Your task to perform on an android device: set default search engine in the chrome app Image 0: 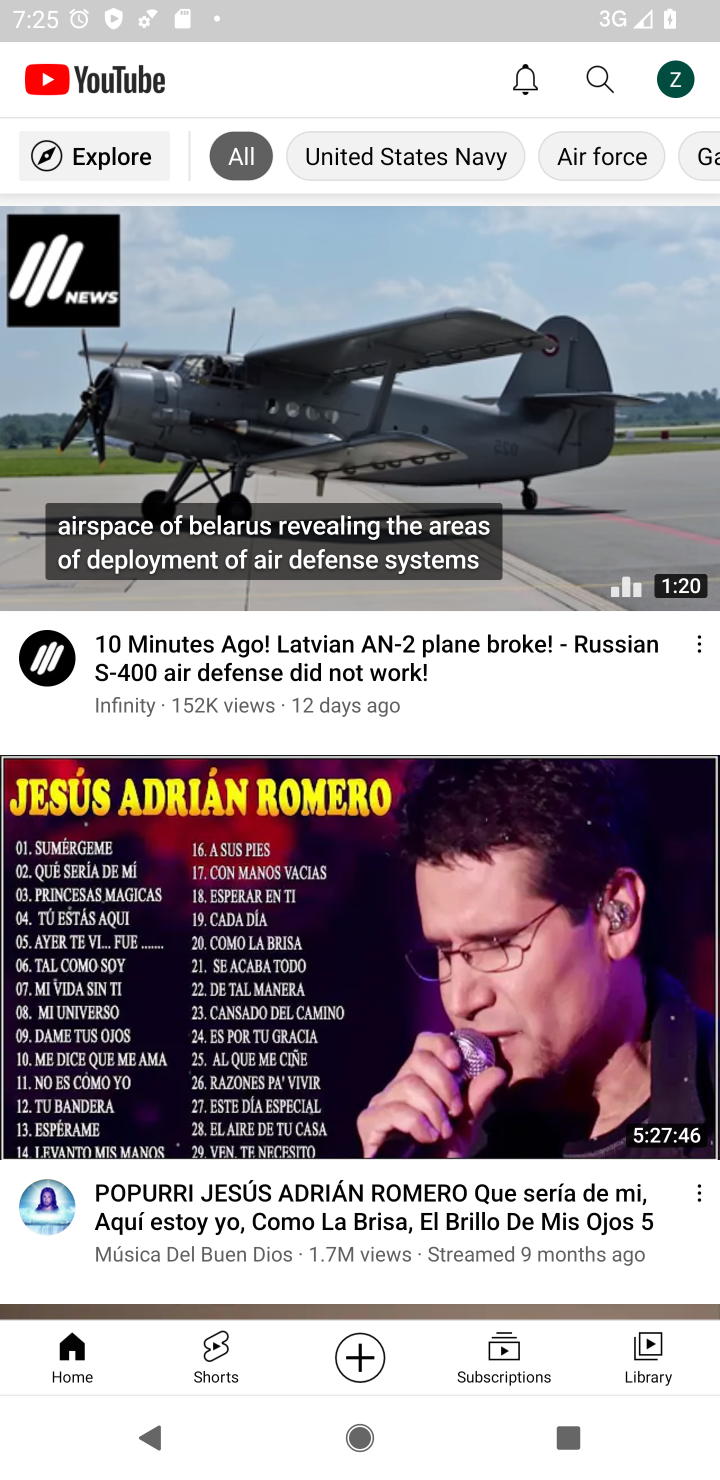
Step 0: press home button
Your task to perform on an android device: set default search engine in the chrome app Image 1: 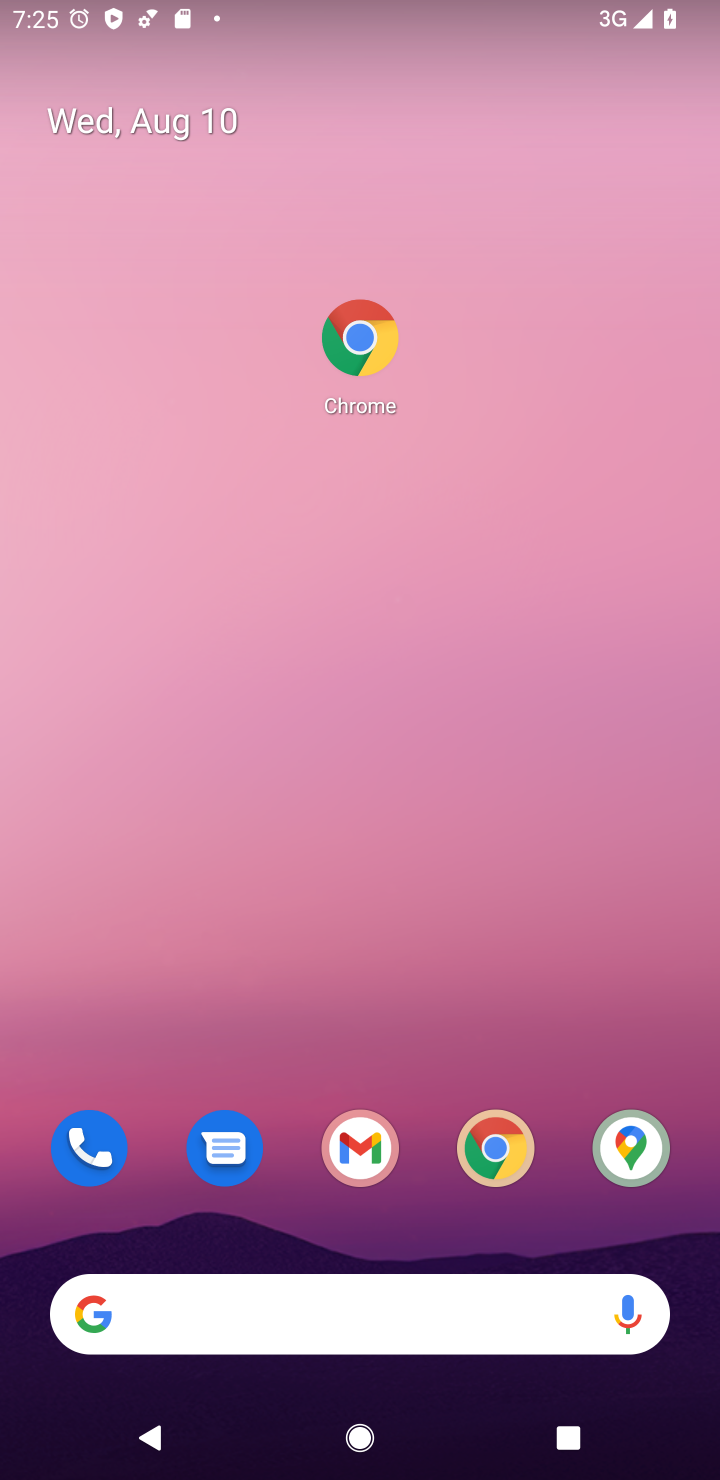
Step 1: click (510, 1160)
Your task to perform on an android device: set default search engine in the chrome app Image 2: 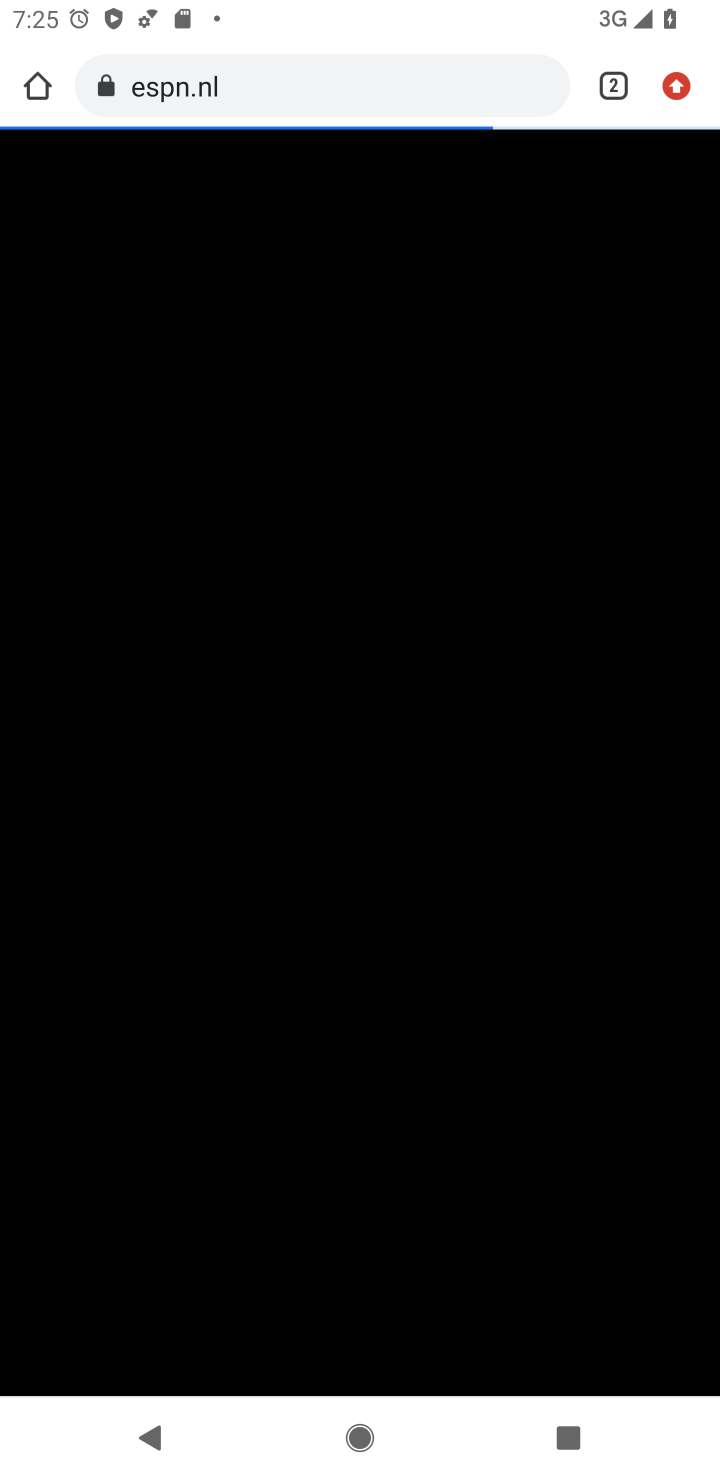
Step 2: click (677, 88)
Your task to perform on an android device: set default search engine in the chrome app Image 3: 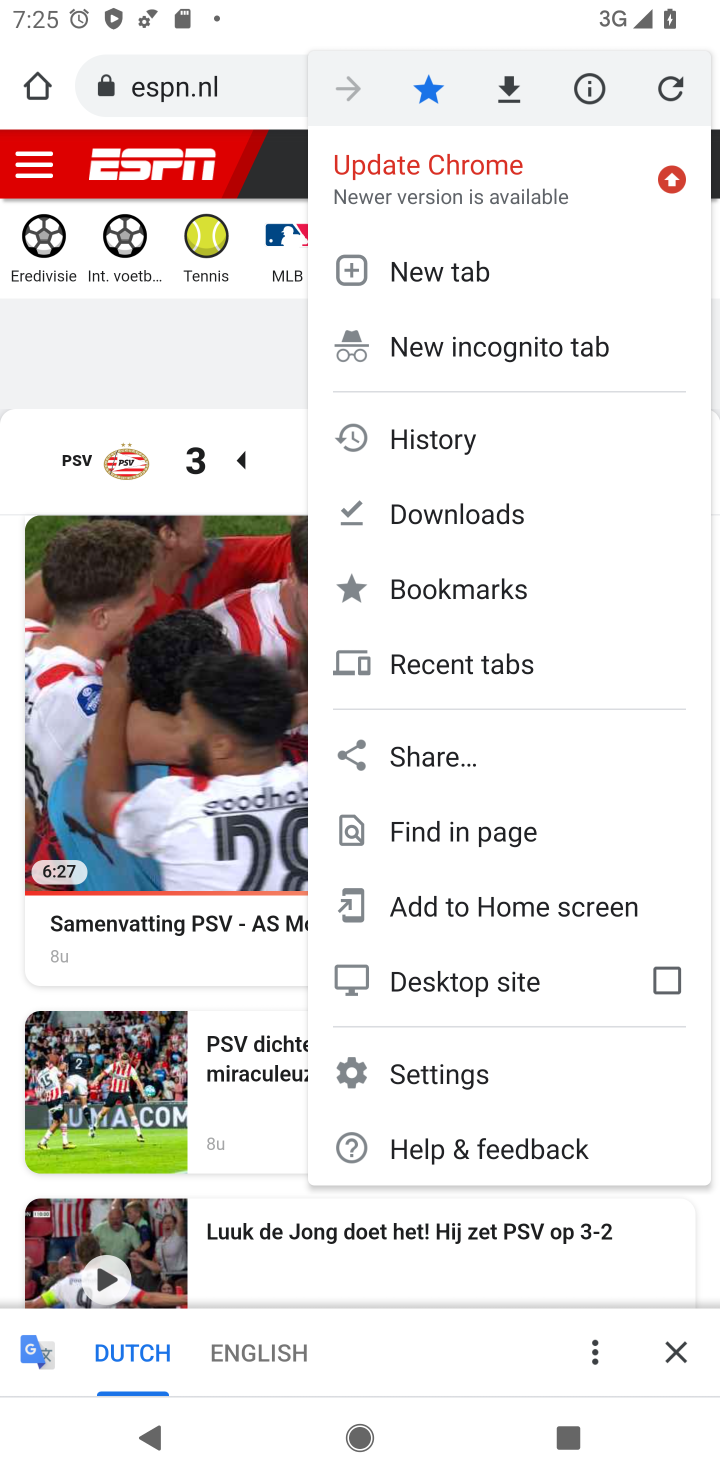
Step 3: click (450, 1065)
Your task to perform on an android device: set default search engine in the chrome app Image 4: 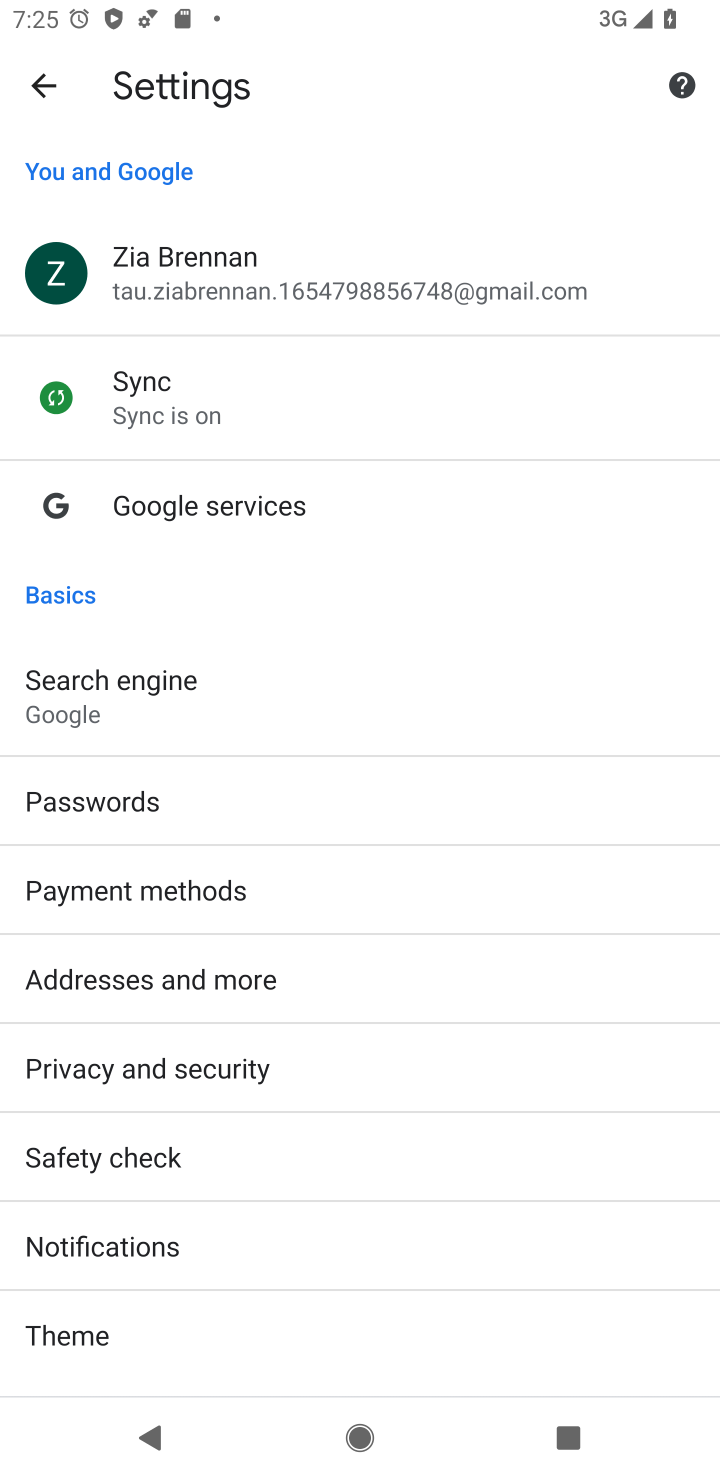
Step 4: click (189, 707)
Your task to perform on an android device: set default search engine in the chrome app Image 5: 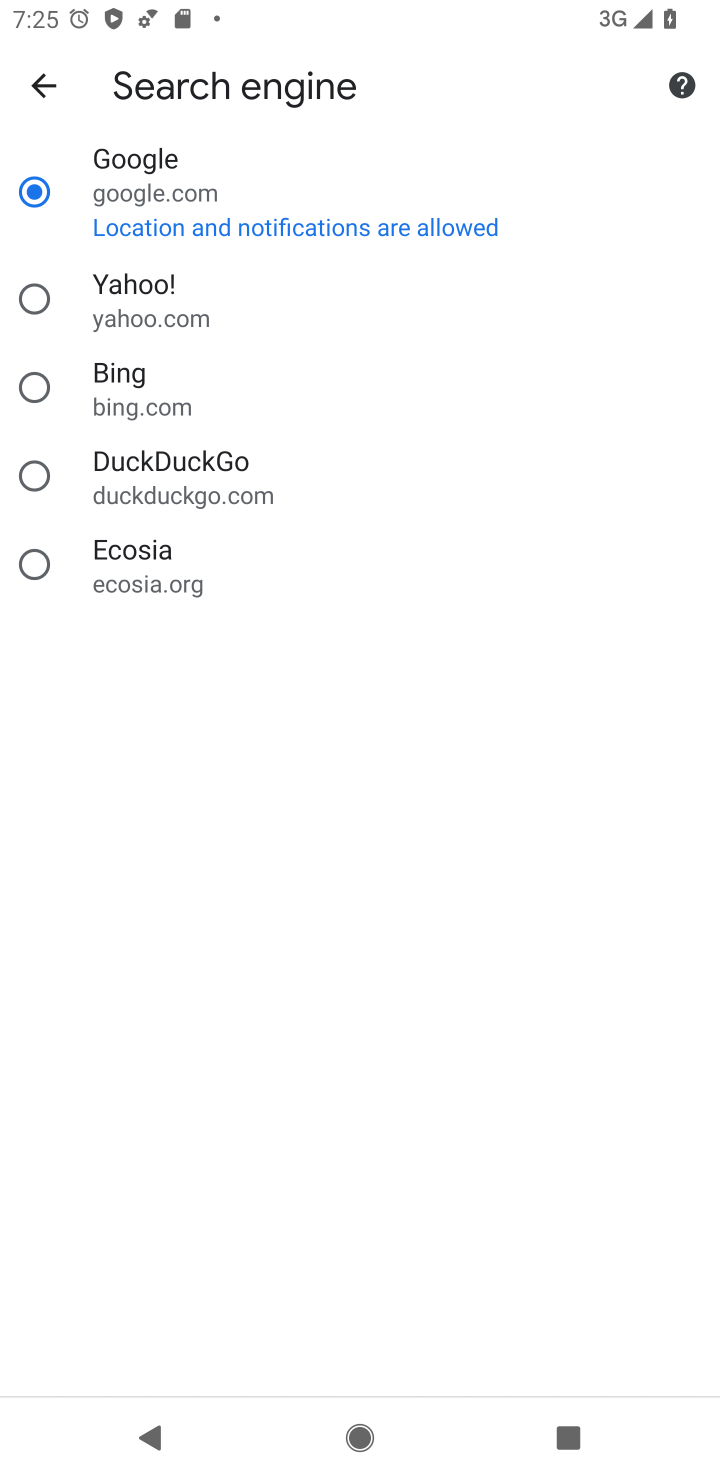
Step 5: click (142, 181)
Your task to perform on an android device: set default search engine in the chrome app Image 6: 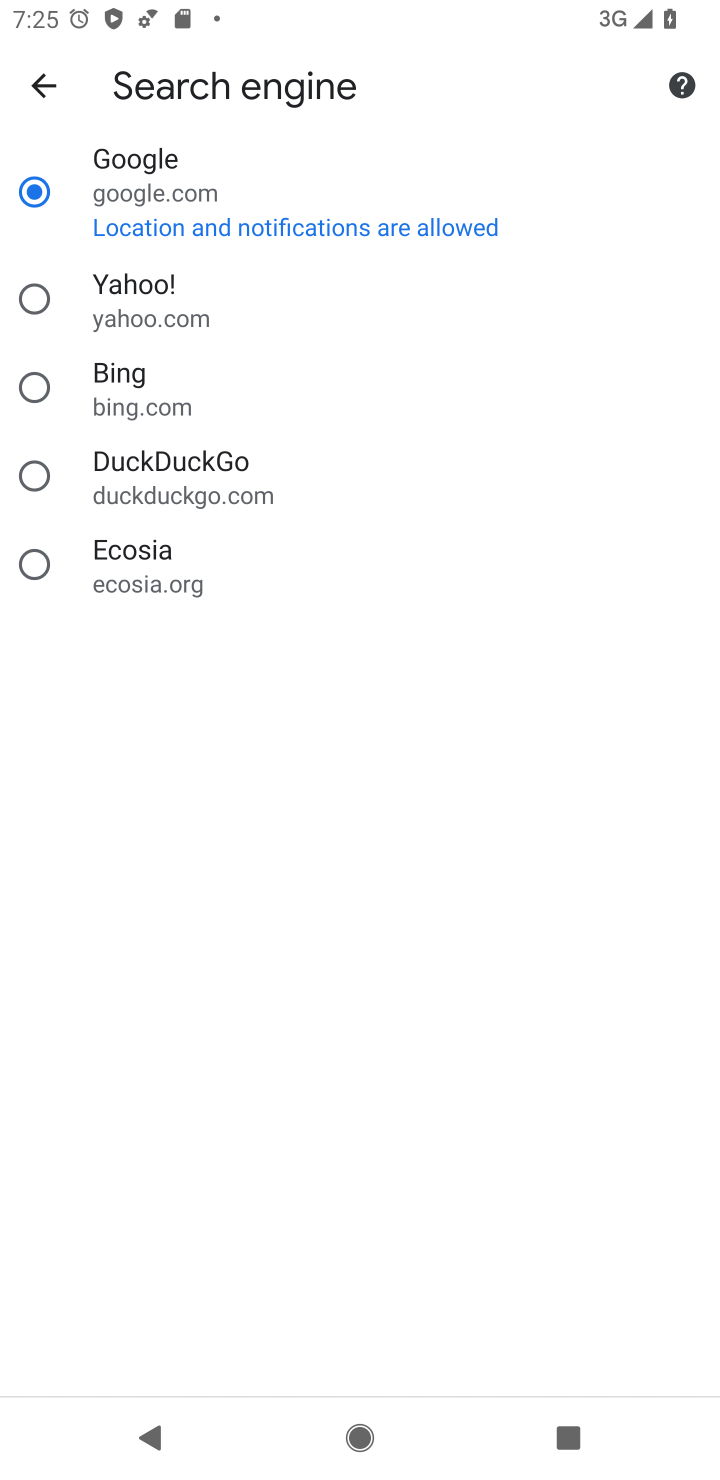
Step 6: click (142, 181)
Your task to perform on an android device: set default search engine in the chrome app Image 7: 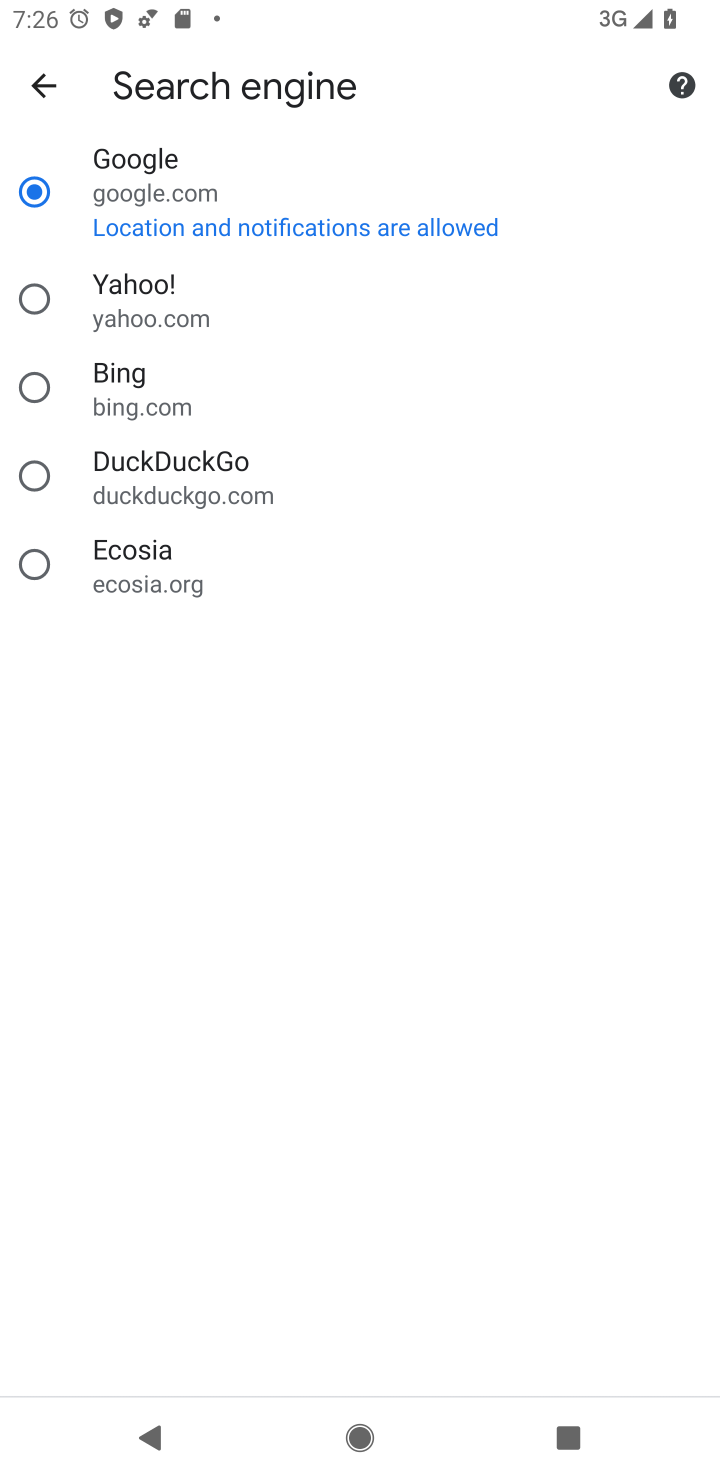
Step 7: task complete